Your task to perform on an android device: turn on the 24-hour format for clock Image 0: 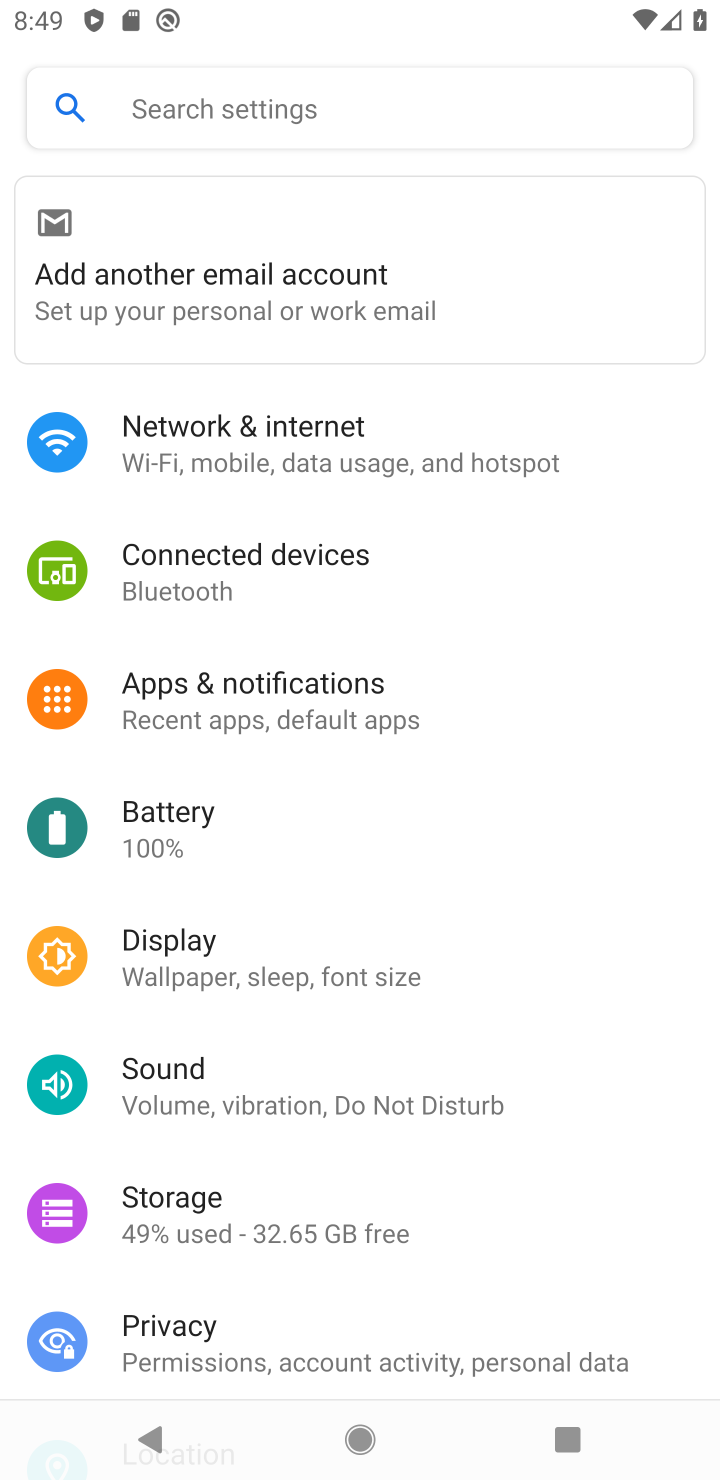
Step 0: press home button
Your task to perform on an android device: turn on the 24-hour format for clock Image 1: 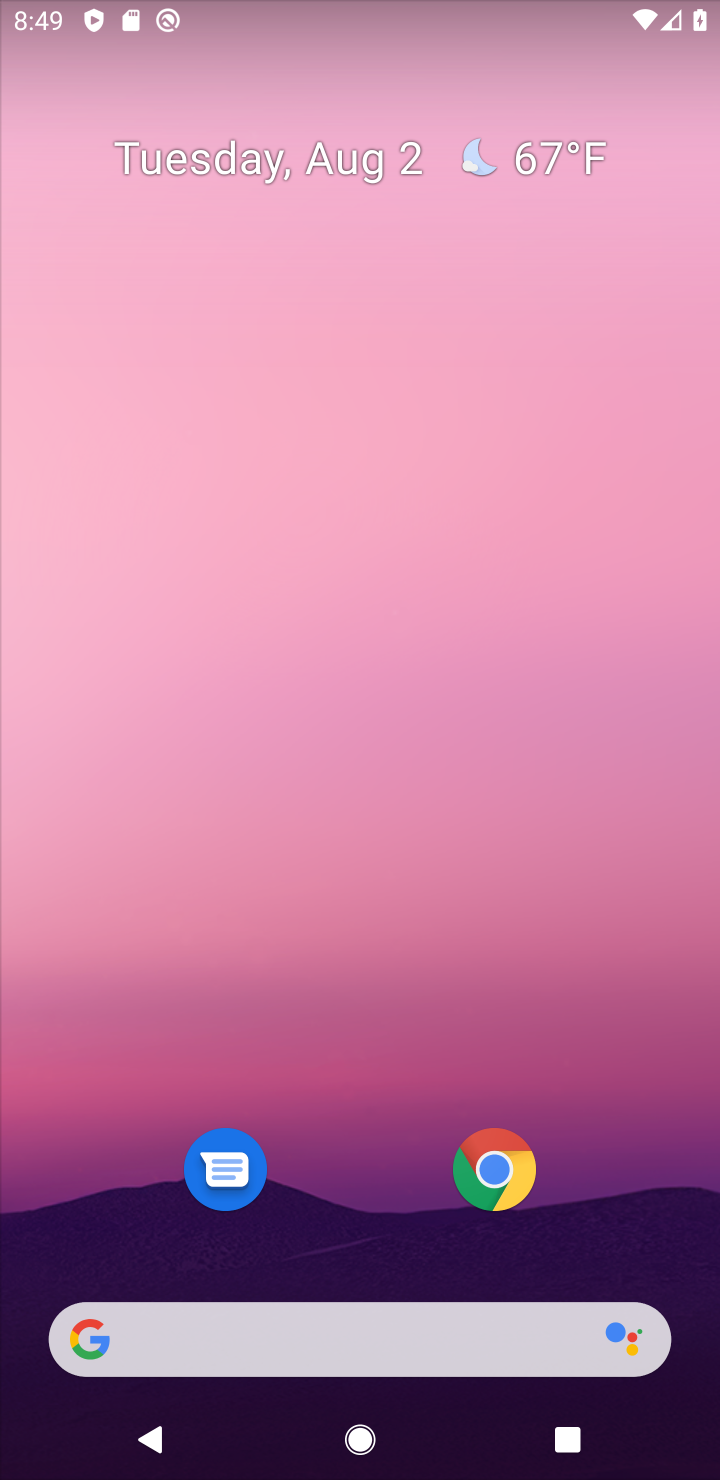
Step 1: drag from (408, 1207) to (328, 309)
Your task to perform on an android device: turn on the 24-hour format for clock Image 2: 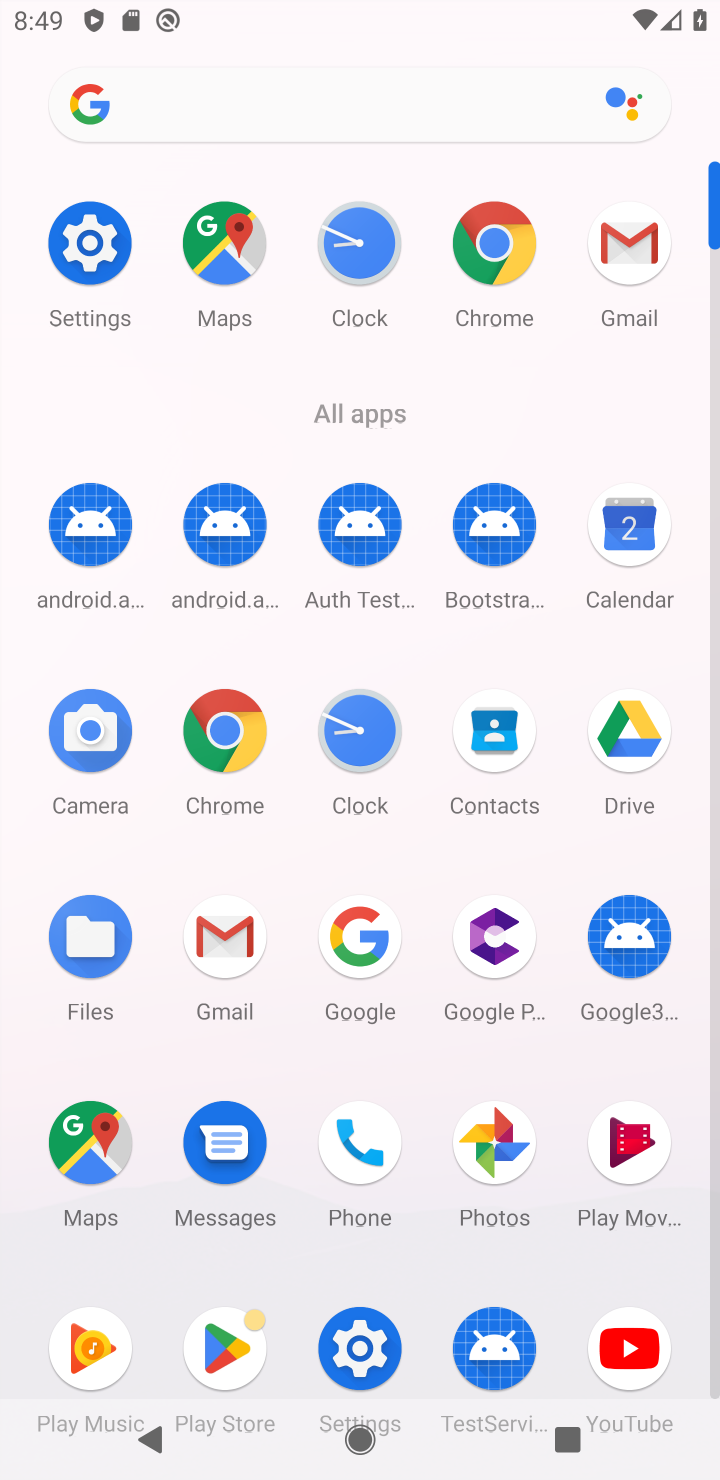
Step 2: click (352, 726)
Your task to perform on an android device: turn on the 24-hour format for clock Image 3: 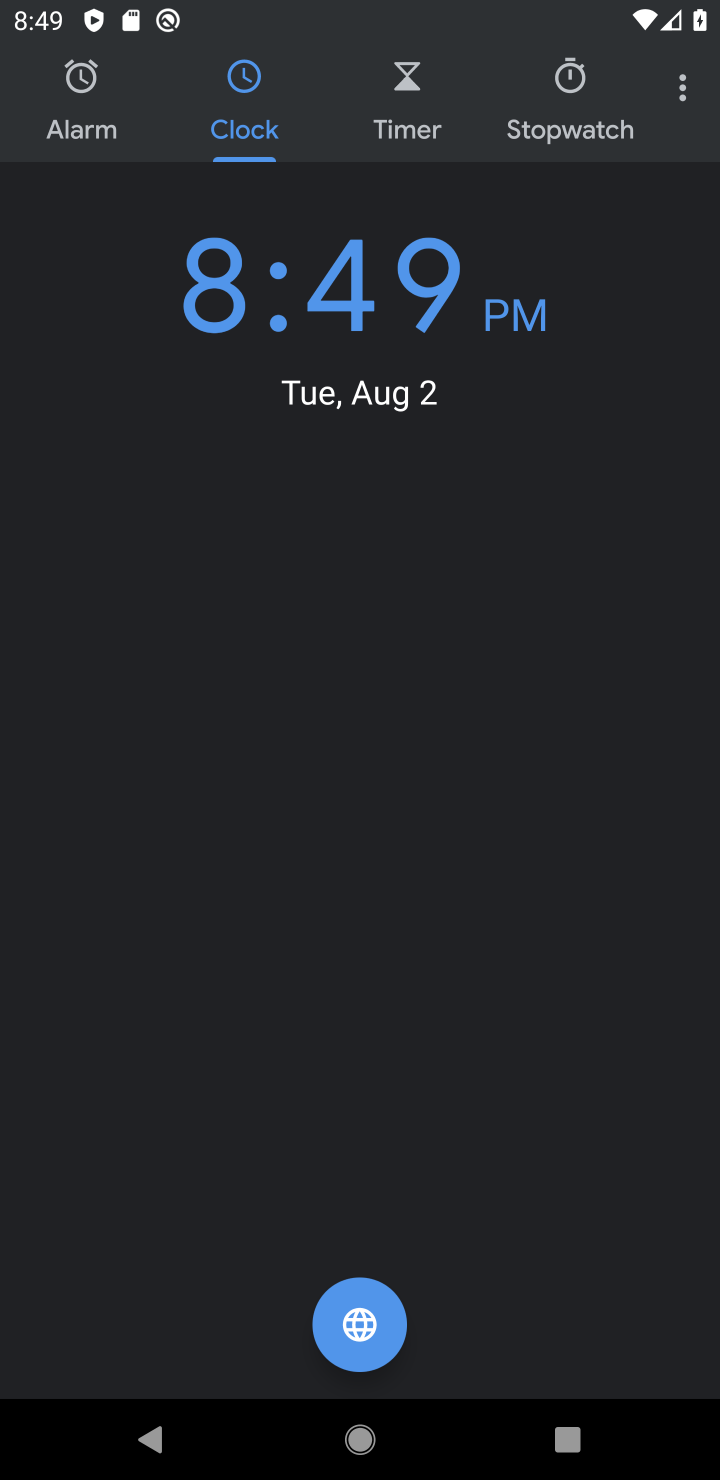
Step 3: click (683, 100)
Your task to perform on an android device: turn on the 24-hour format for clock Image 4: 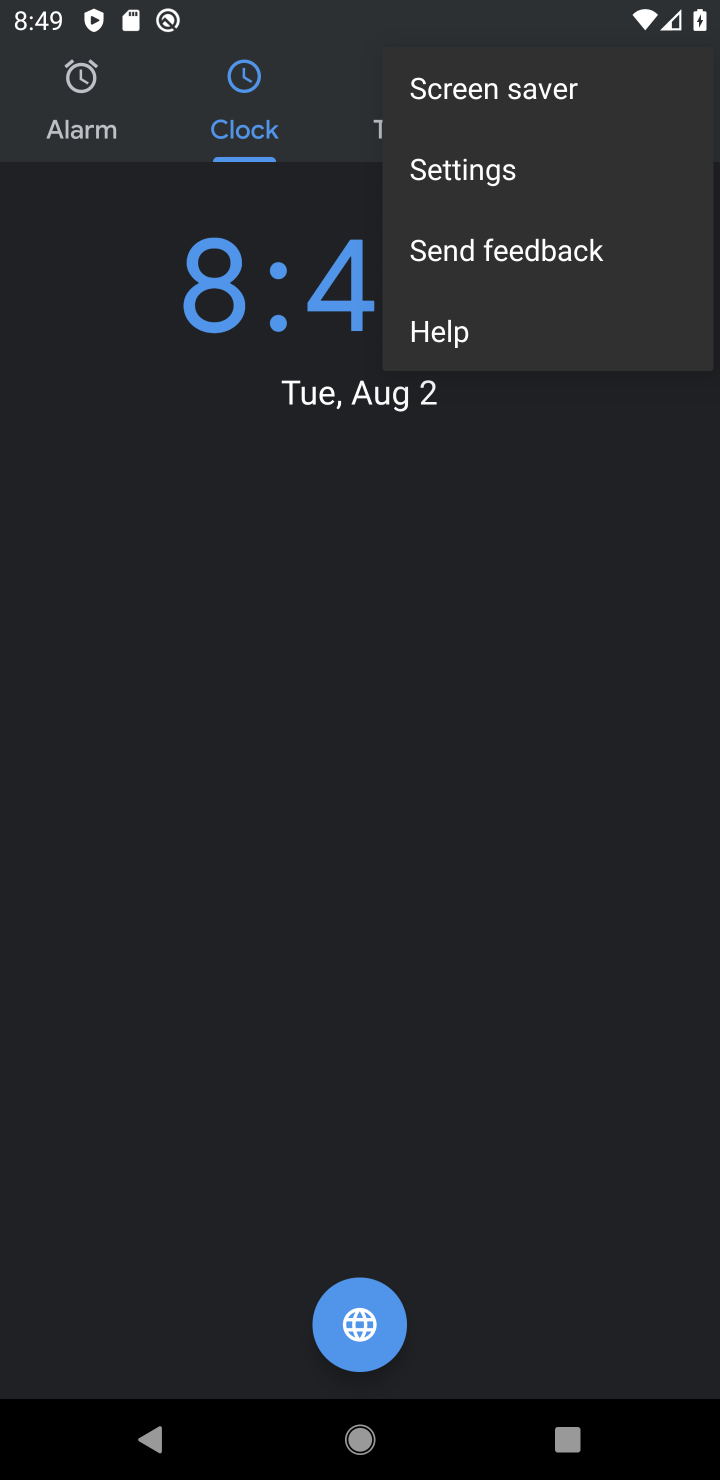
Step 4: click (471, 169)
Your task to perform on an android device: turn on the 24-hour format for clock Image 5: 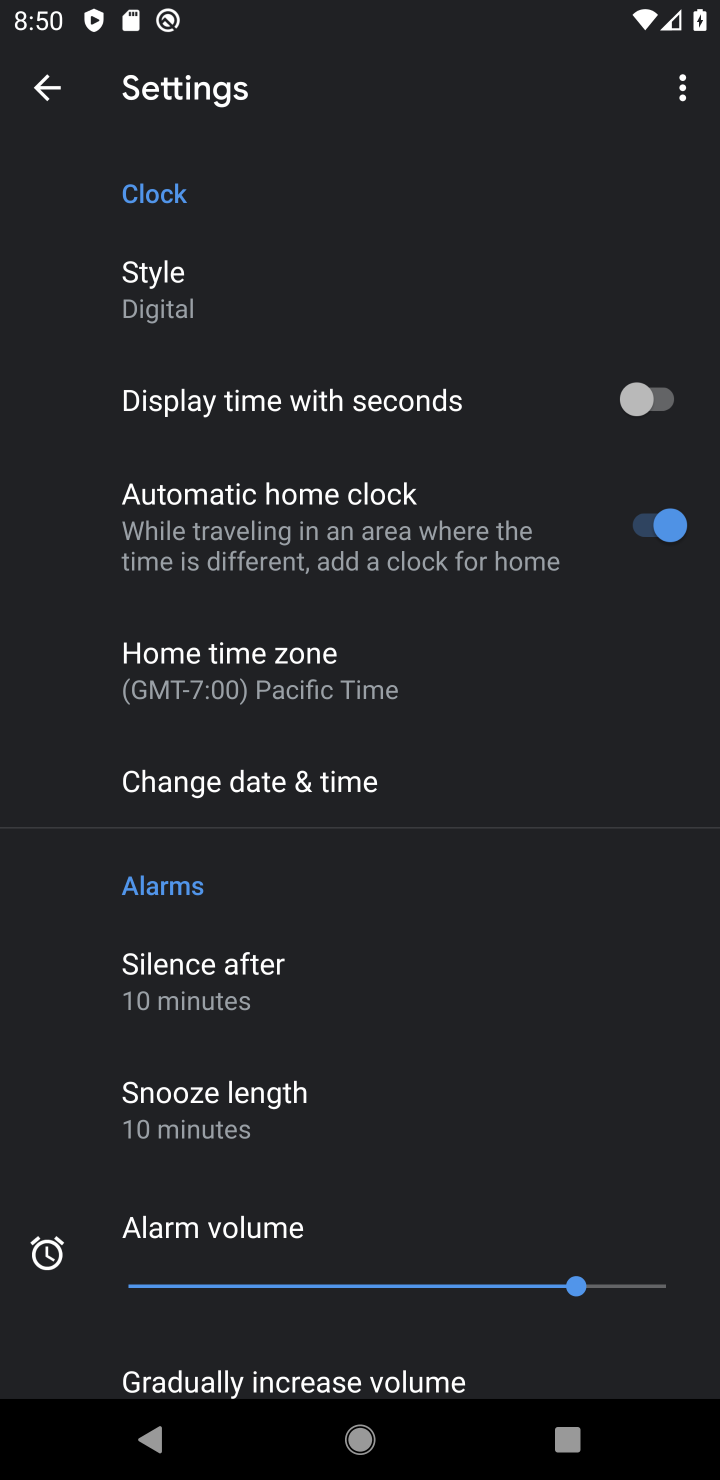
Step 5: click (292, 784)
Your task to perform on an android device: turn on the 24-hour format for clock Image 6: 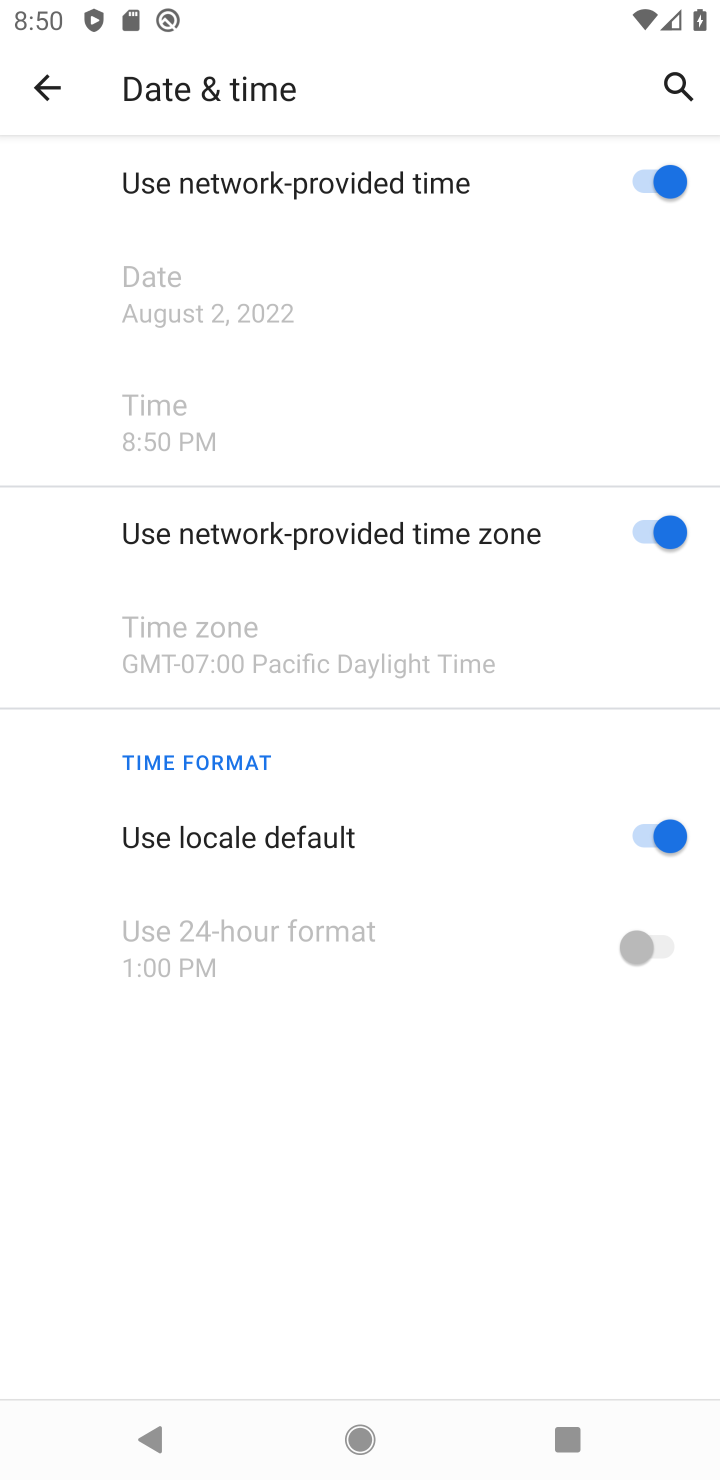
Step 6: click (640, 838)
Your task to perform on an android device: turn on the 24-hour format for clock Image 7: 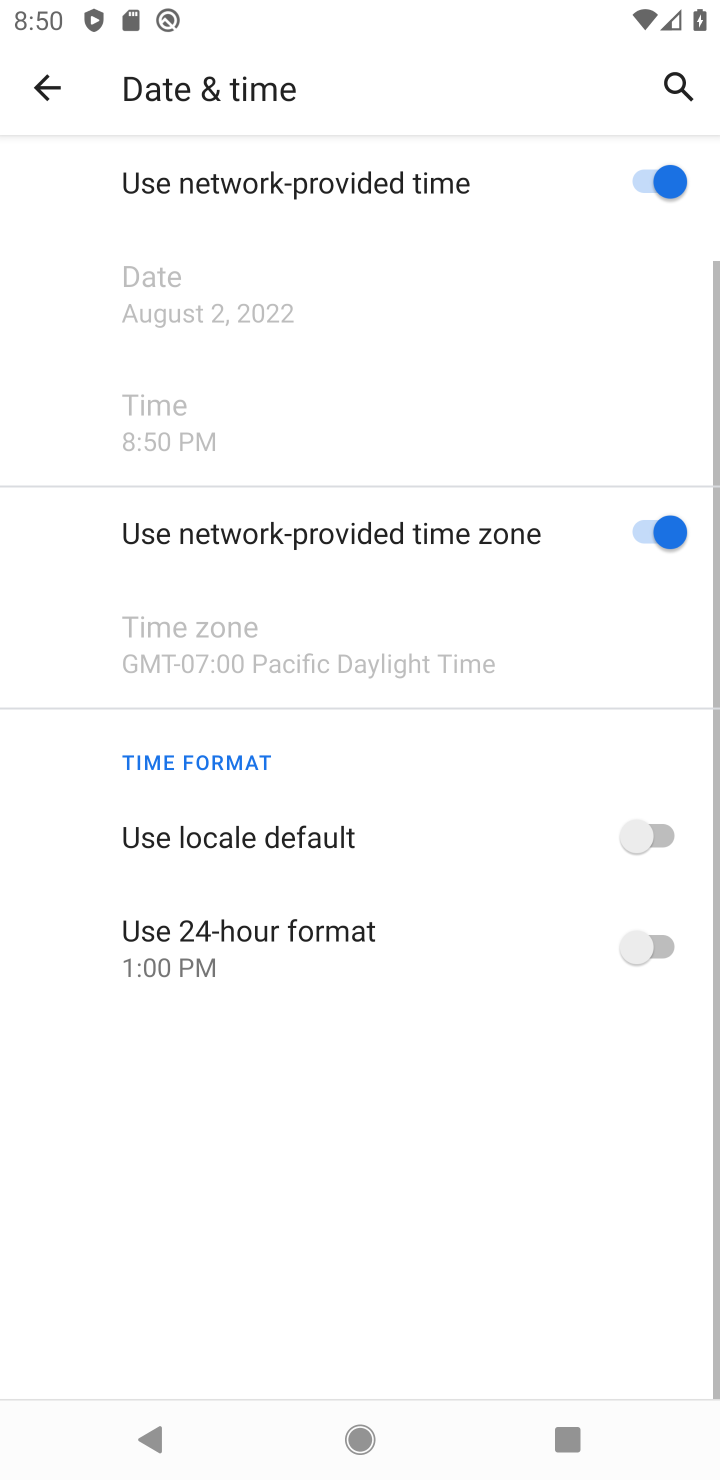
Step 7: click (659, 948)
Your task to perform on an android device: turn on the 24-hour format for clock Image 8: 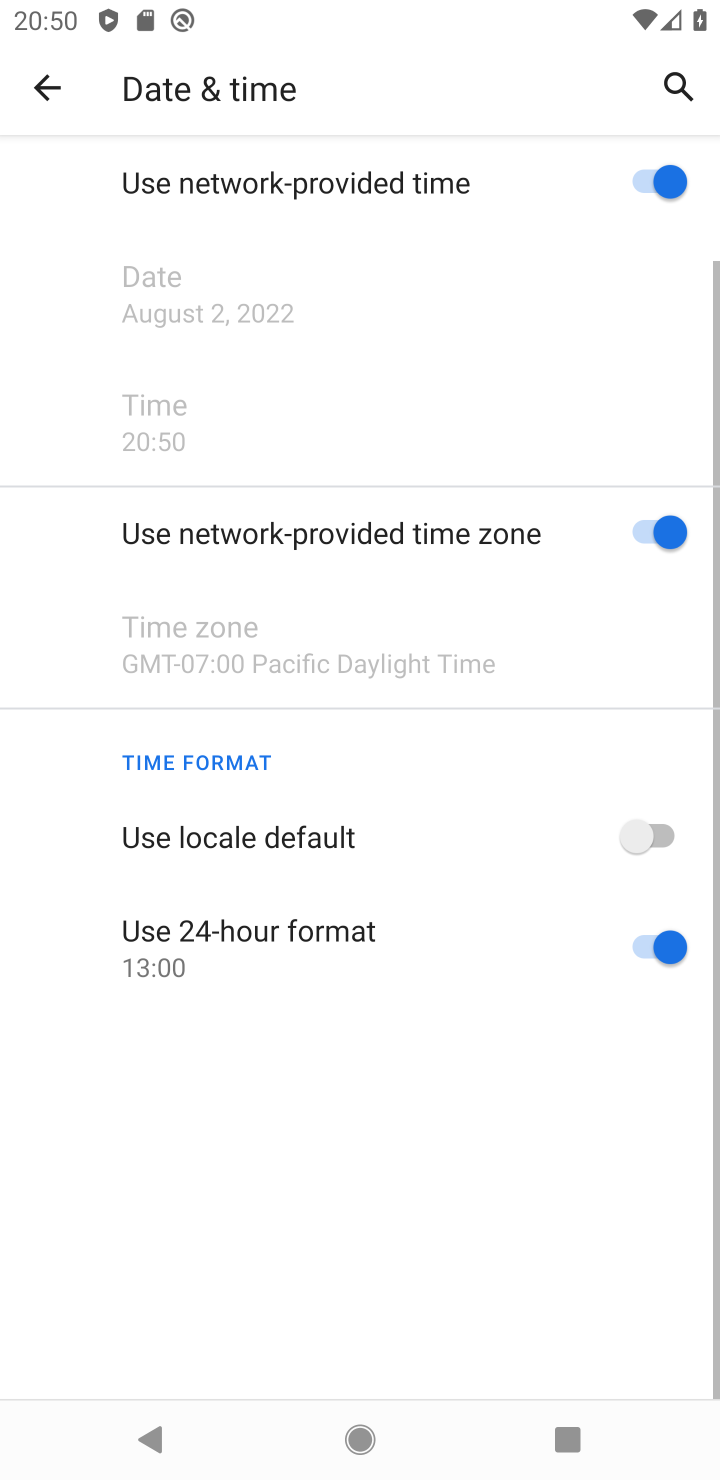
Step 8: task complete